Your task to perform on an android device: open app "DoorDash - Dasher" (install if not already installed) Image 0: 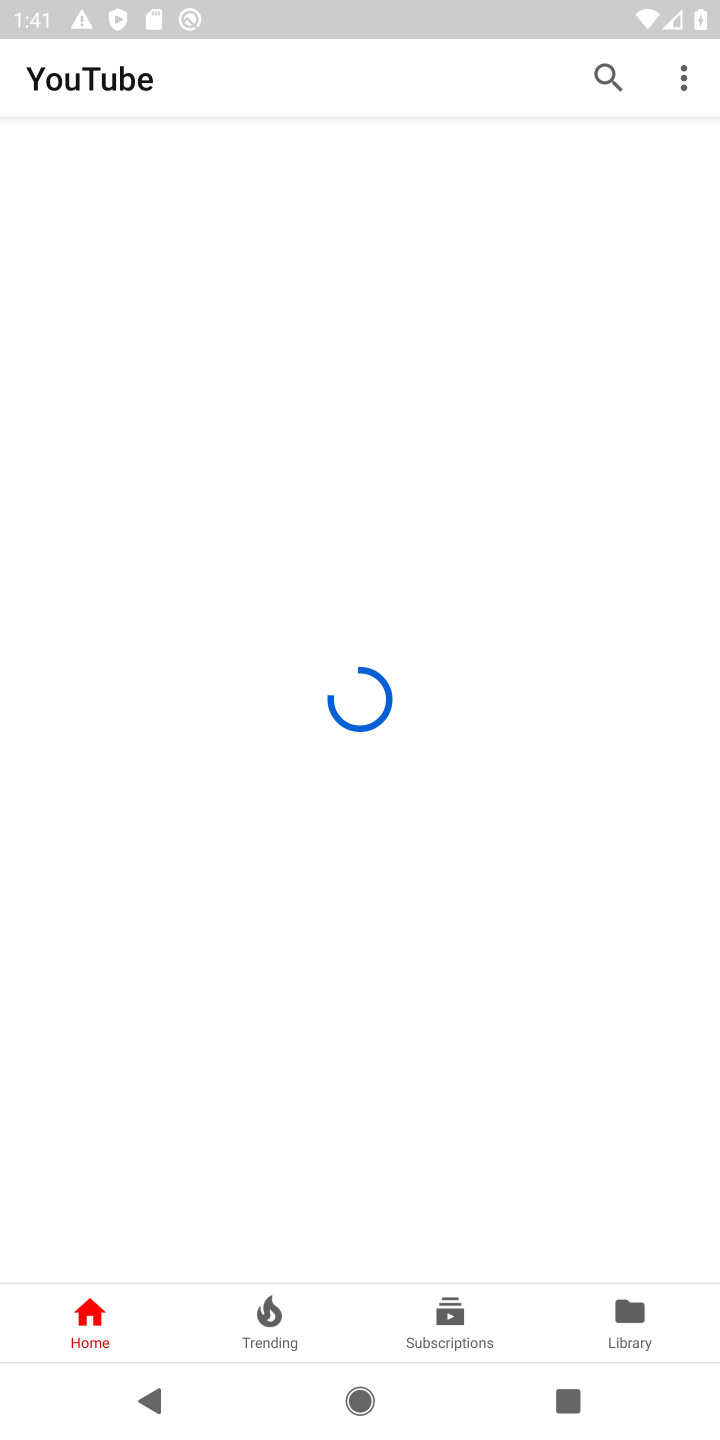
Step 0: press home button
Your task to perform on an android device: open app "DoorDash - Dasher" (install if not already installed) Image 1: 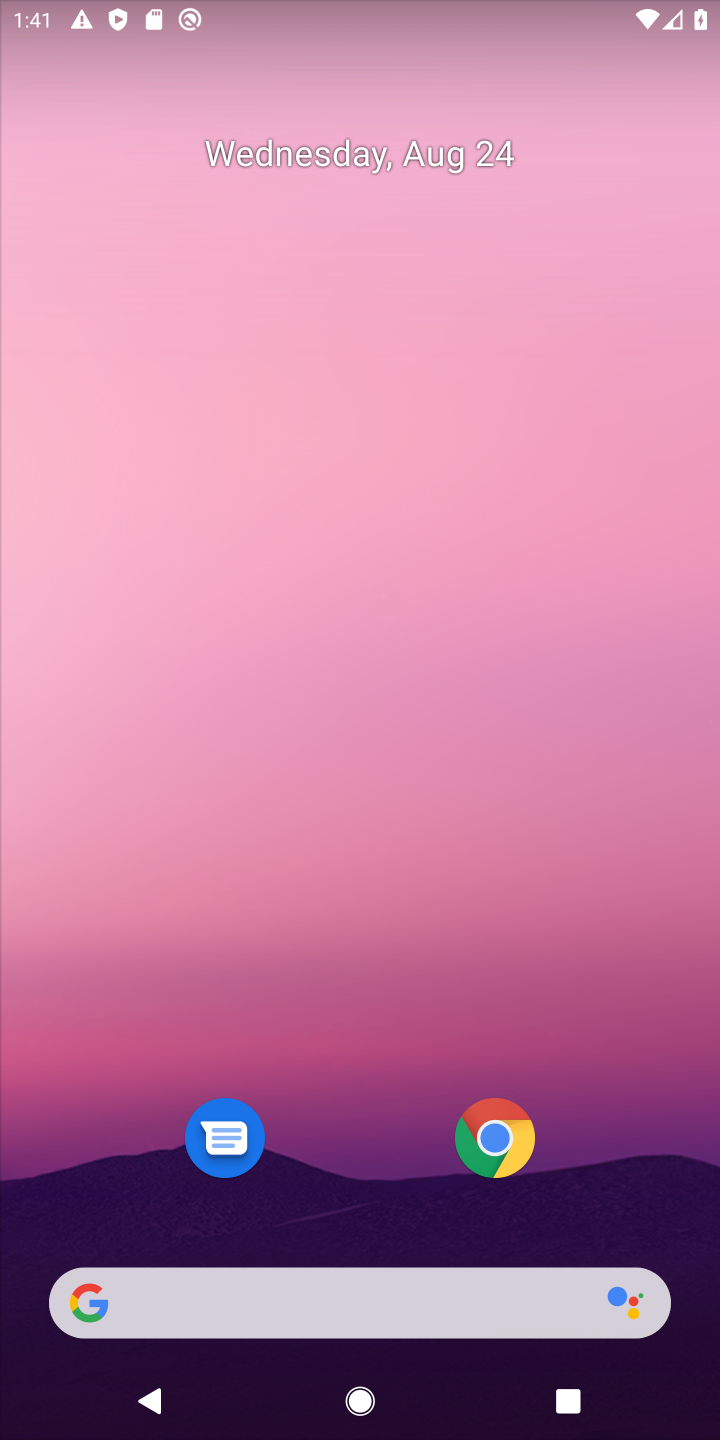
Step 1: drag from (331, 429) to (331, 108)
Your task to perform on an android device: open app "DoorDash - Dasher" (install if not already installed) Image 2: 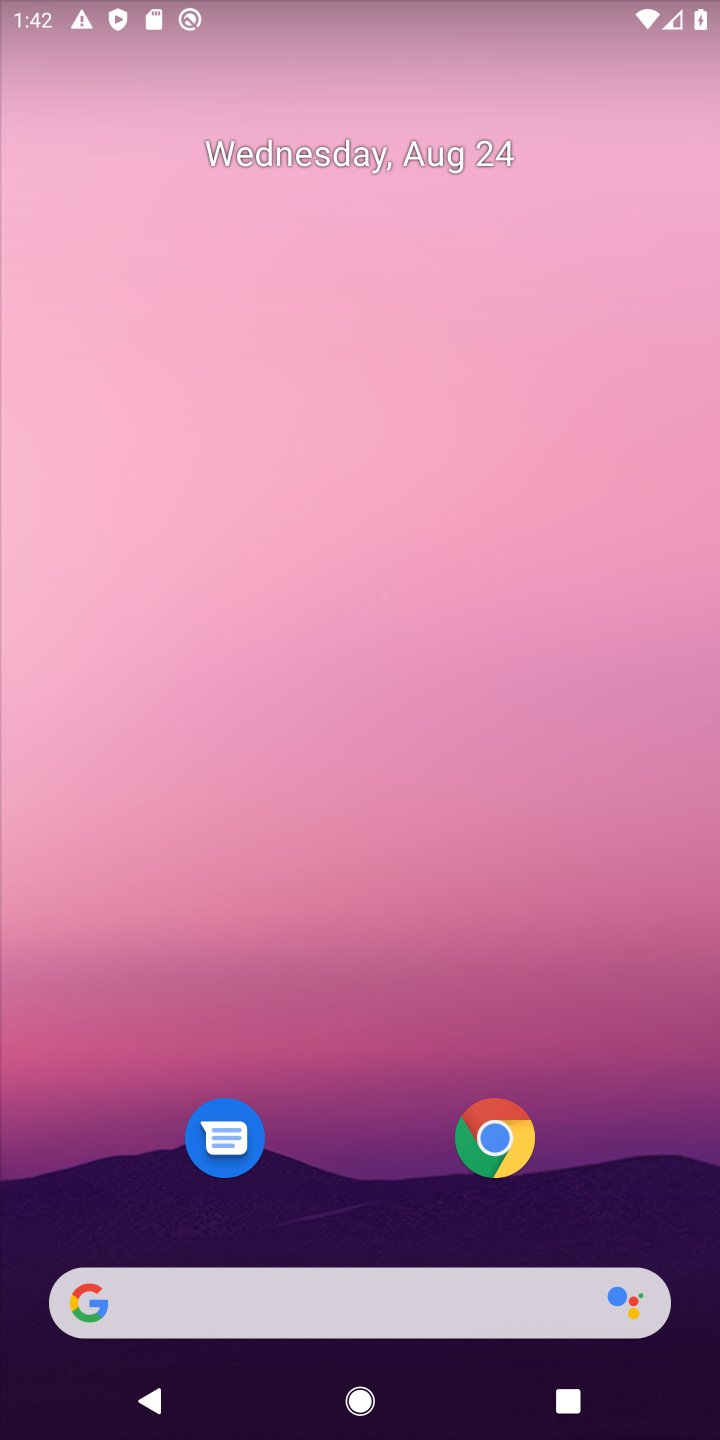
Step 2: drag from (360, 1240) to (336, 137)
Your task to perform on an android device: open app "DoorDash - Dasher" (install if not already installed) Image 3: 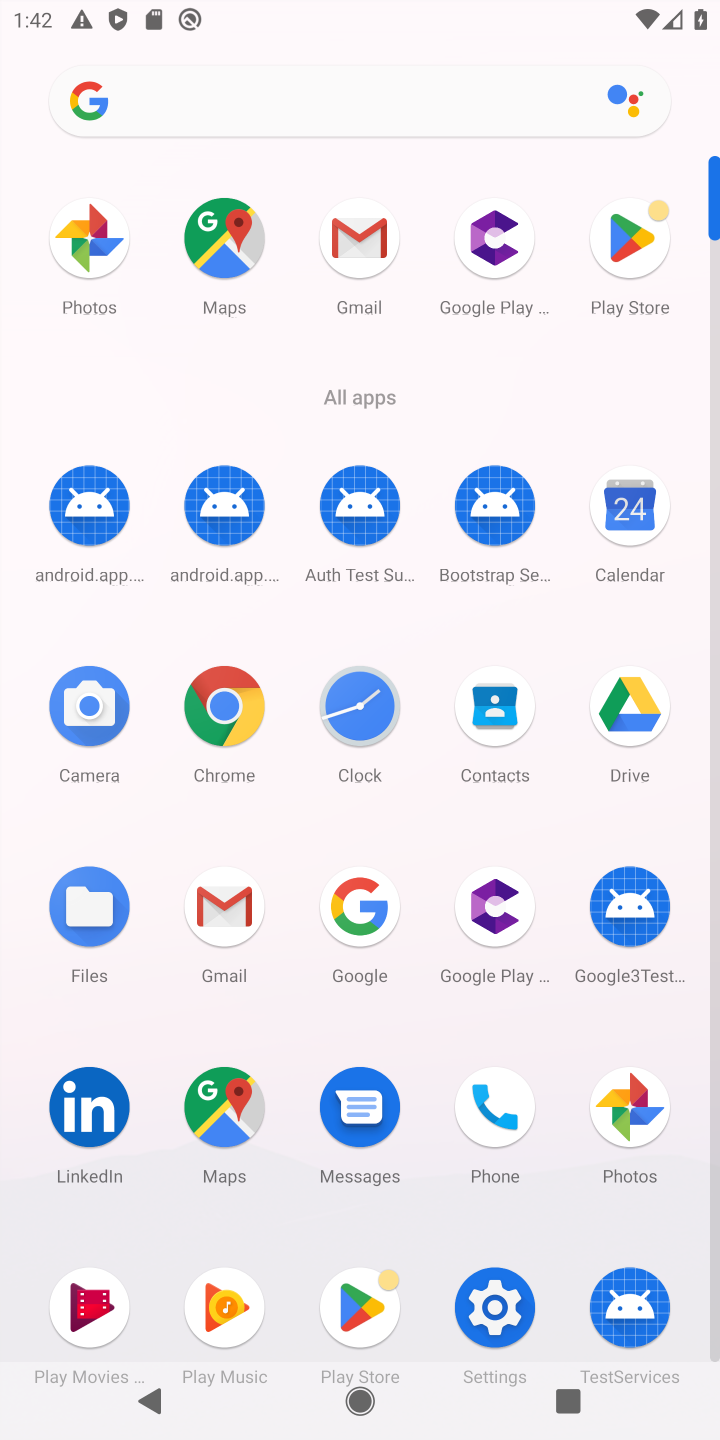
Step 3: click (630, 239)
Your task to perform on an android device: open app "DoorDash - Dasher" (install if not already installed) Image 4: 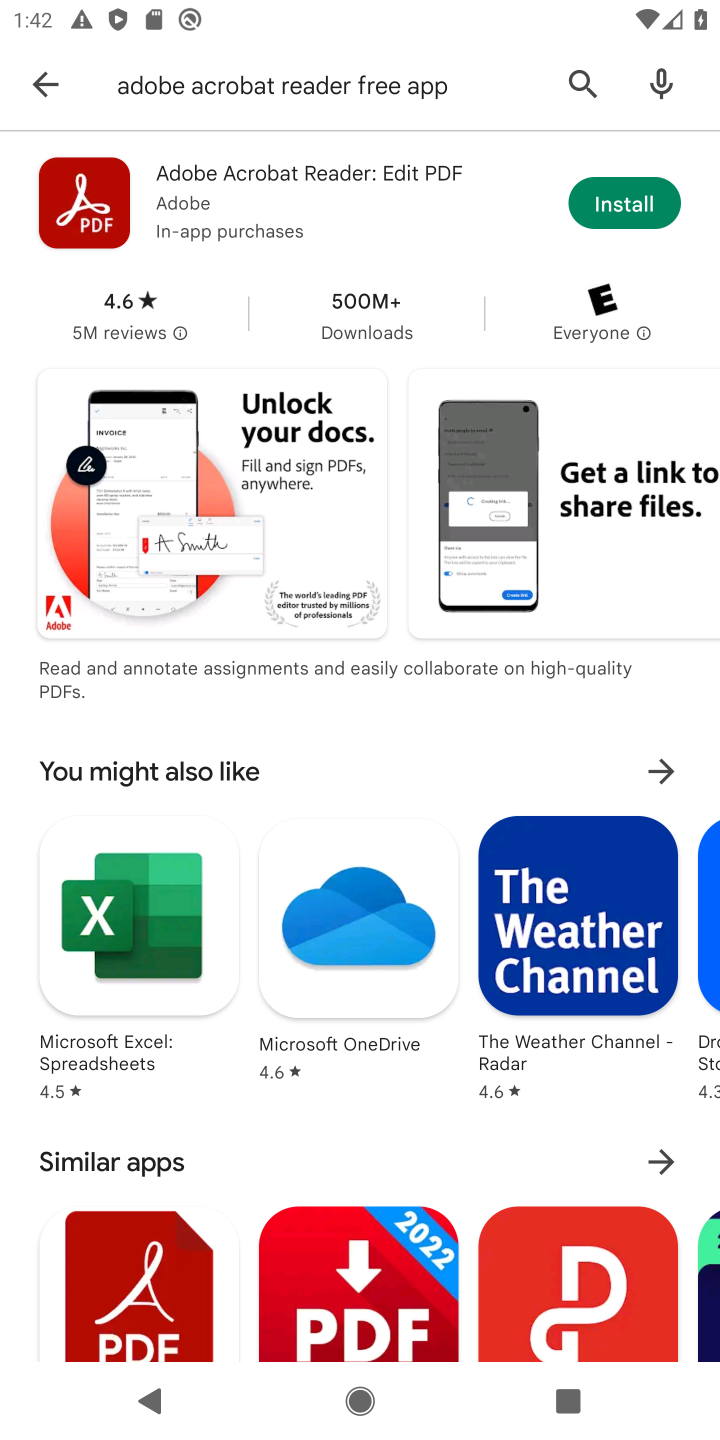
Step 4: click (582, 84)
Your task to perform on an android device: open app "DoorDash - Dasher" (install if not already installed) Image 5: 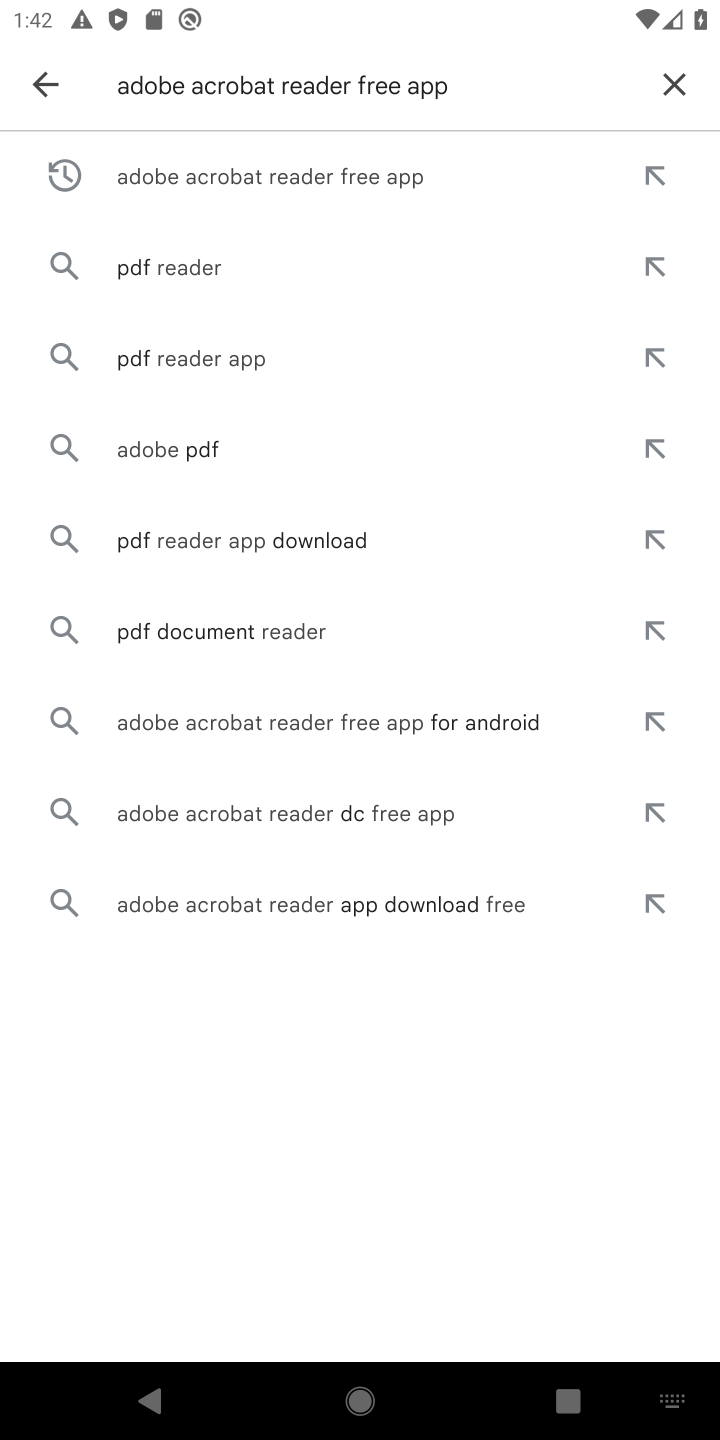
Step 5: click (671, 80)
Your task to perform on an android device: open app "DoorDash - Dasher" (install if not already installed) Image 6: 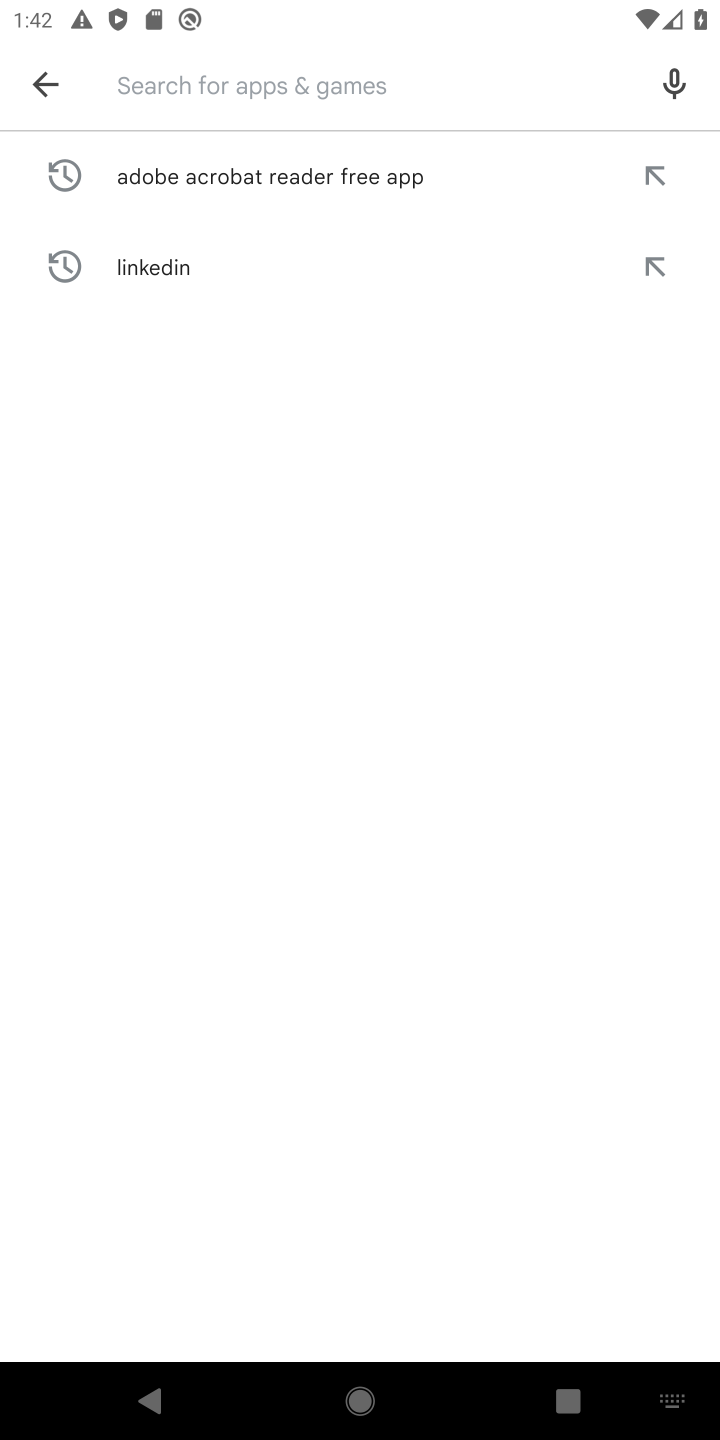
Step 6: type "DoorDash - Dasher"
Your task to perform on an android device: open app "DoorDash - Dasher" (install if not already installed) Image 7: 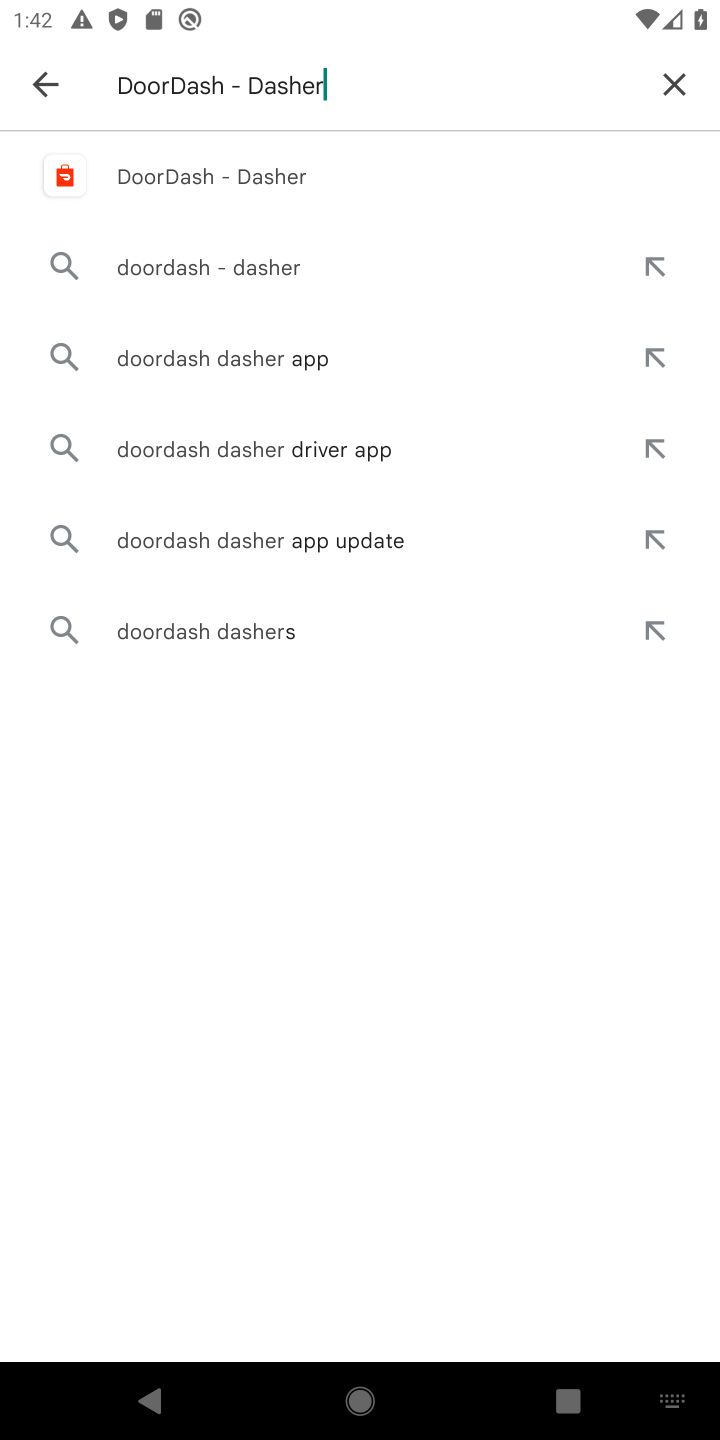
Step 7: click (270, 170)
Your task to perform on an android device: open app "DoorDash - Dasher" (install if not already installed) Image 8: 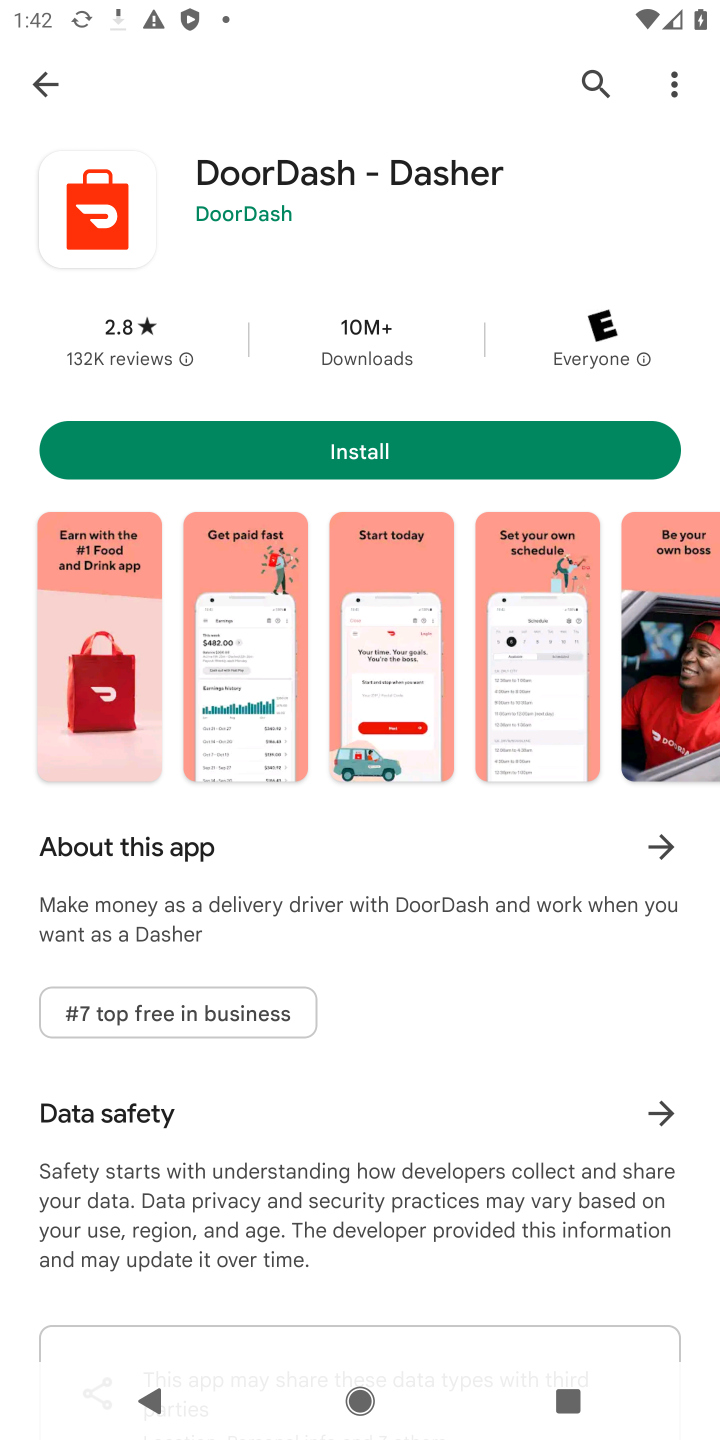
Step 8: click (382, 462)
Your task to perform on an android device: open app "DoorDash - Dasher" (install if not already installed) Image 9: 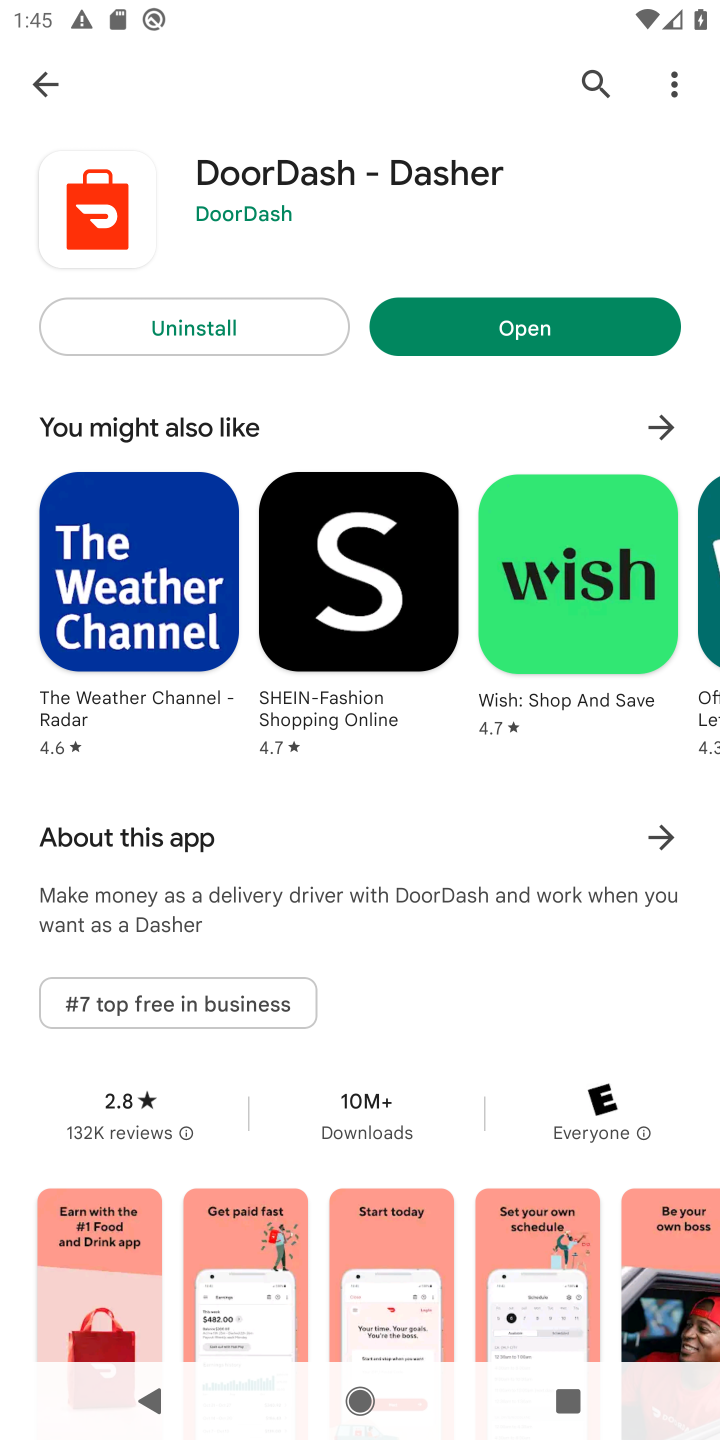
Step 9: click (473, 316)
Your task to perform on an android device: open app "DoorDash - Dasher" (install if not already installed) Image 10: 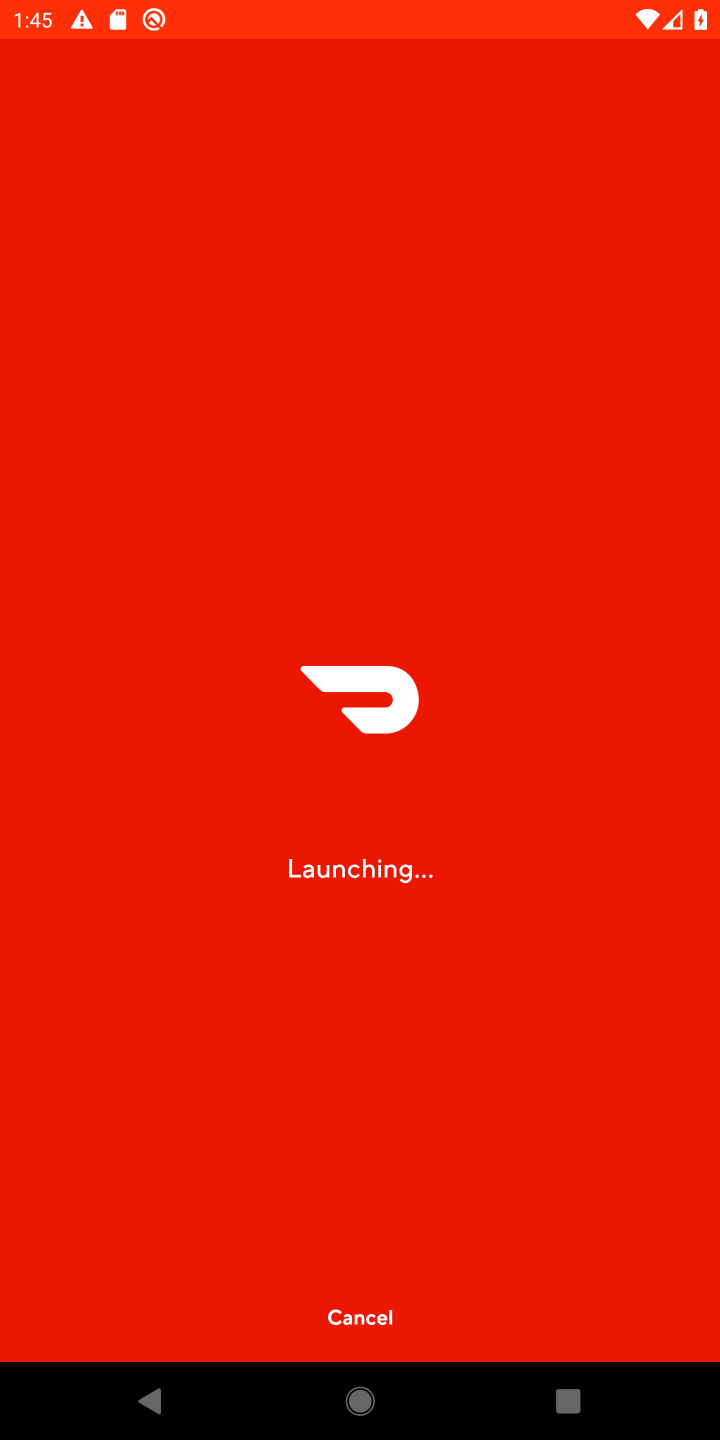
Step 10: task complete